Your task to perform on an android device: Set the phone to "Do not disturb". Image 0: 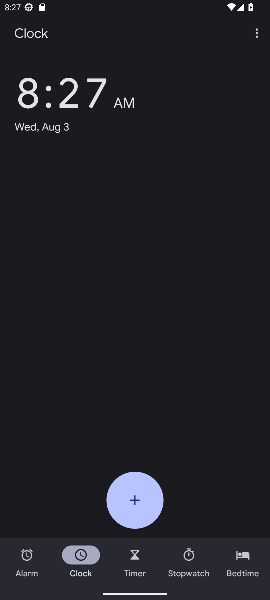
Step 0: press back button
Your task to perform on an android device: Set the phone to "Do not disturb". Image 1: 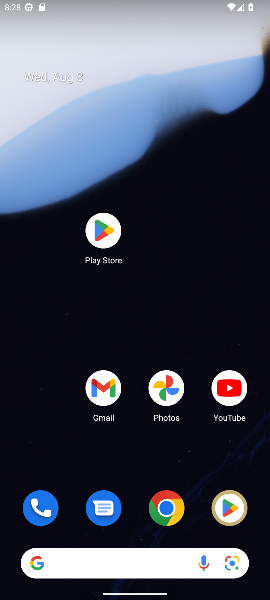
Step 1: drag from (126, 3) to (115, 364)
Your task to perform on an android device: Set the phone to "Do not disturb". Image 2: 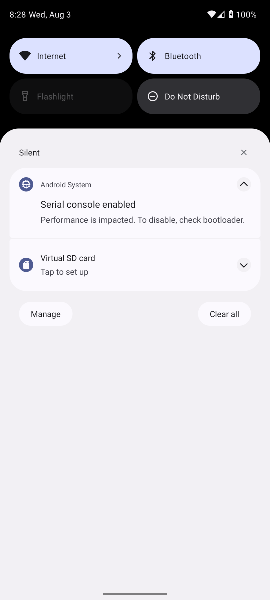
Step 2: drag from (101, 81) to (102, 392)
Your task to perform on an android device: Set the phone to "Do not disturb". Image 3: 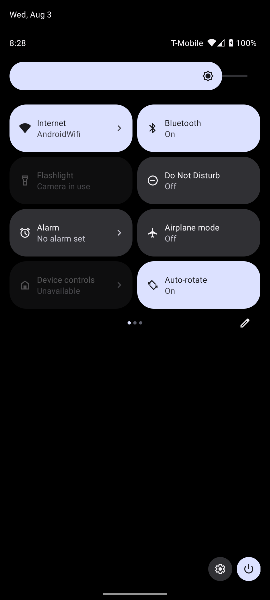
Step 3: click (194, 191)
Your task to perform on an android device: Set the phone to "Do not disturb". Image 4: 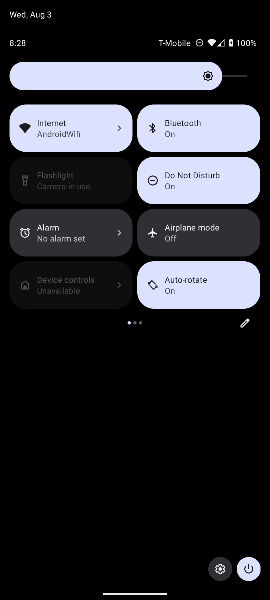
Step 4: task complete